Your task to perform on an android device: set an alarm Image 0: 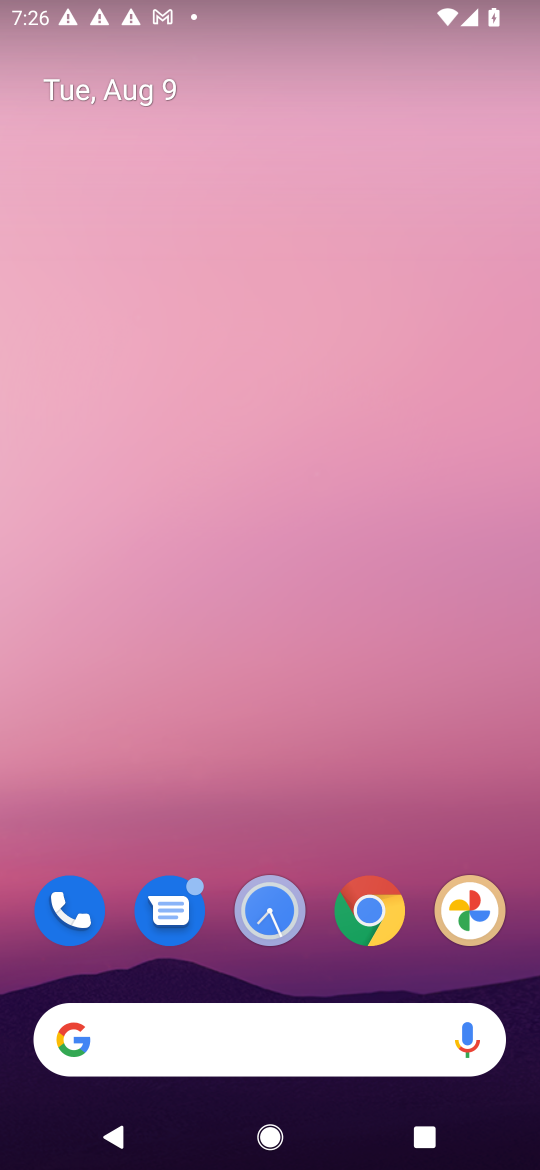
Step 0: drag from (324, 1062) to (320, 113)
Your task to perform on an android device: set an alarm Image 1: 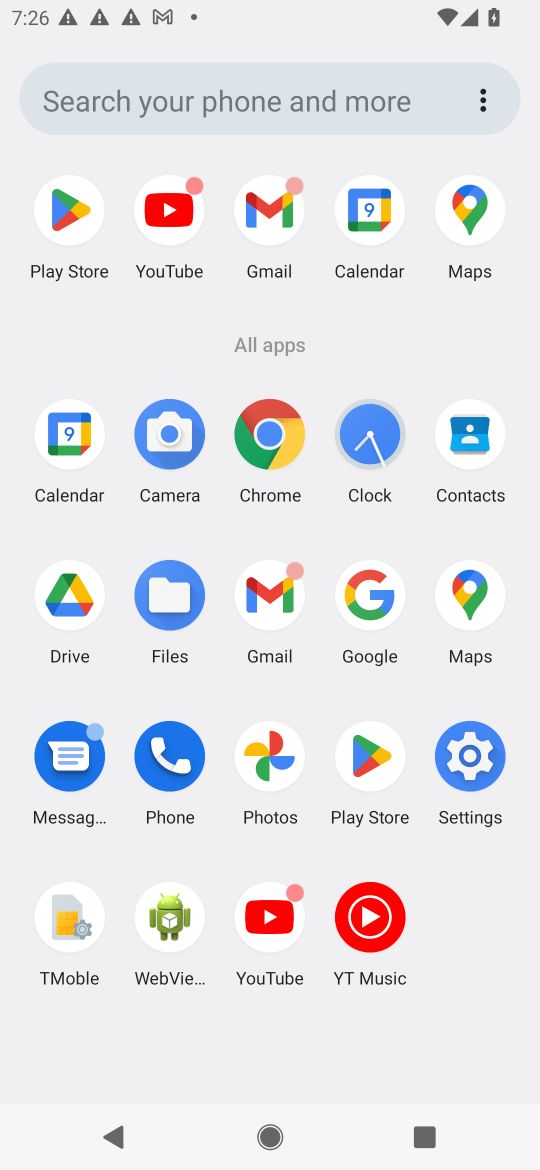
Step 1: click (364, 460)
Your task to perform on an android device: set an alarm Image 2: 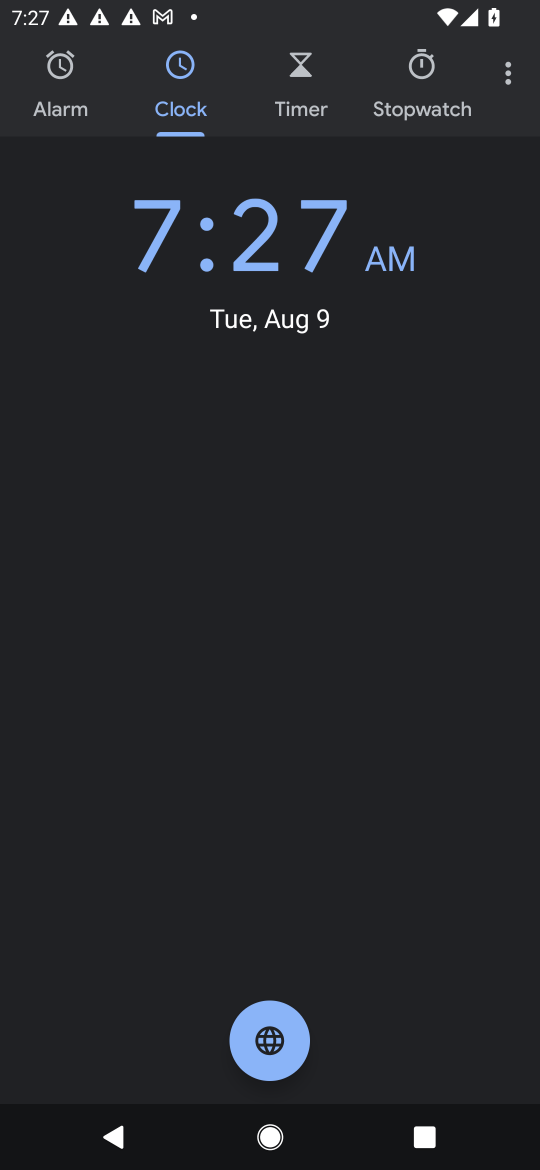
Step 2: click (72, 82)
Your task to perform on an android device: set an alarm Image 3: 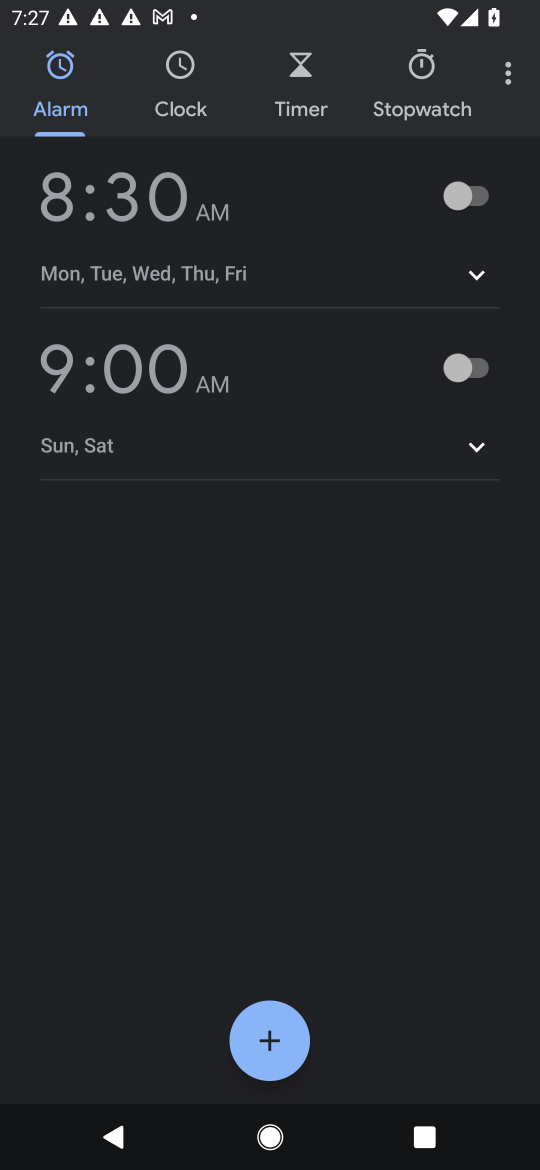
Step 3: click (273, 1056)
Your task to perform on an android device: set an alarm Image 4: 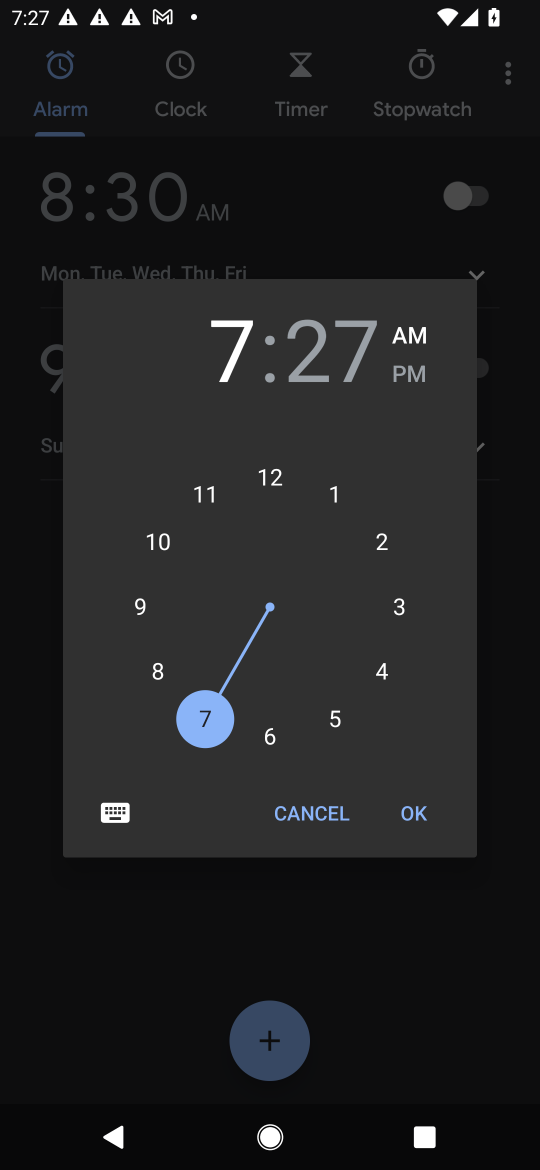
Step 4: click (419, 818)
Your task to perform on an android device: set an alarm Image 5: 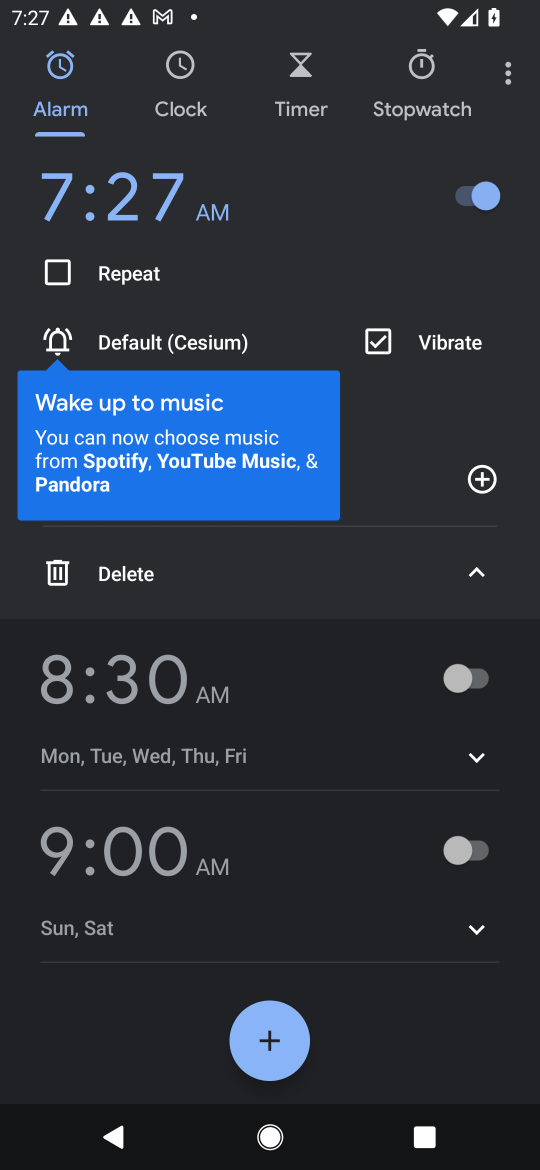
Step 5: task complete